Your task to perform on an android device: Open Google Maps and go to "Timeline" Image 0: 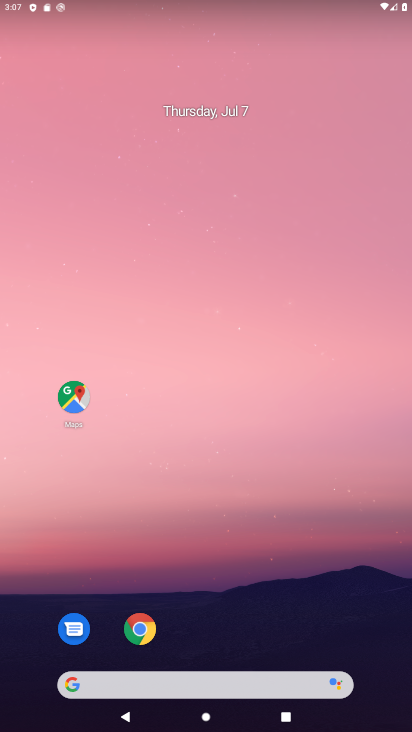
Step 0: click (85, 403)
Your task to perform on an android device: Open Google Maps and go to "Timeline" Image 1: 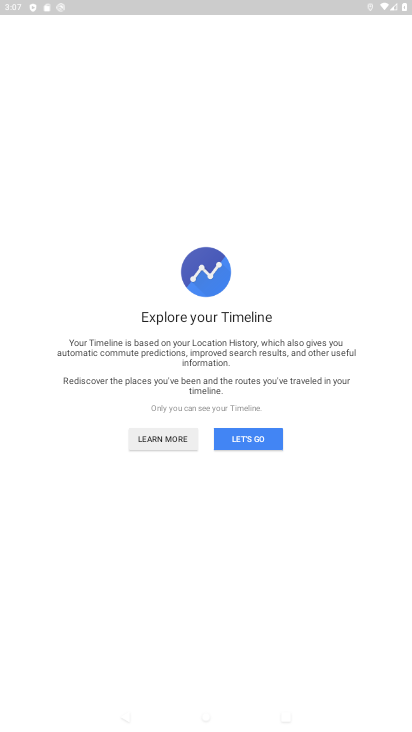
Step 1: task complete